Your task to perform on an android device: toggle improve location accuracy Image 0: 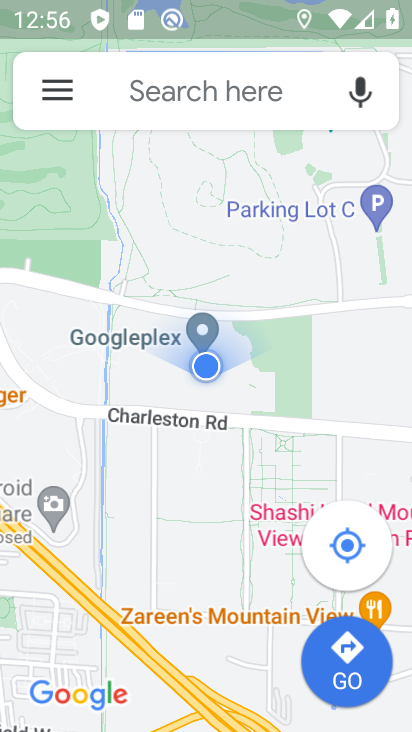
Step 0: click (320, 448)
Your task to perform on an android device: toggle improve location accuracy Image 1: 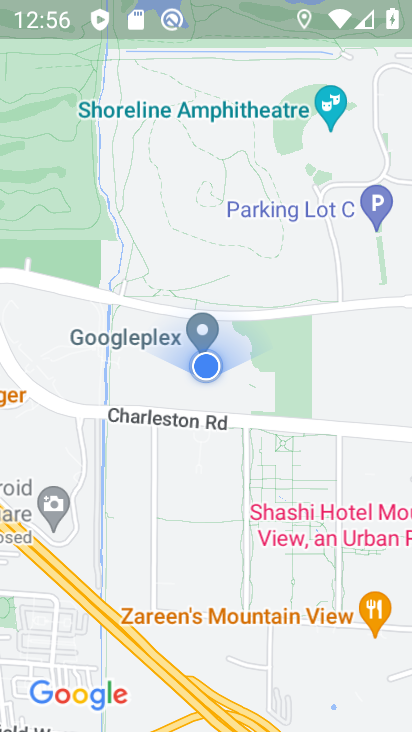
Step 1: press home button
Your task to perform on an android device: toggle improve location accuracy Image 2: 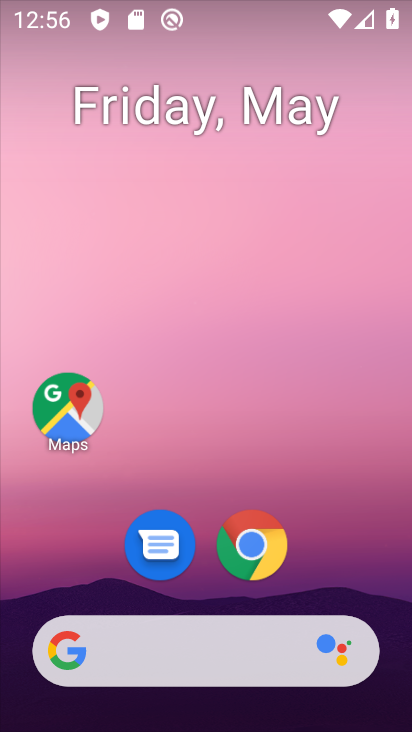
Step 2: drag from (324, 505) to (282, 221)
Your task to perform on an android device: toggle improve location accuracy Image 3: 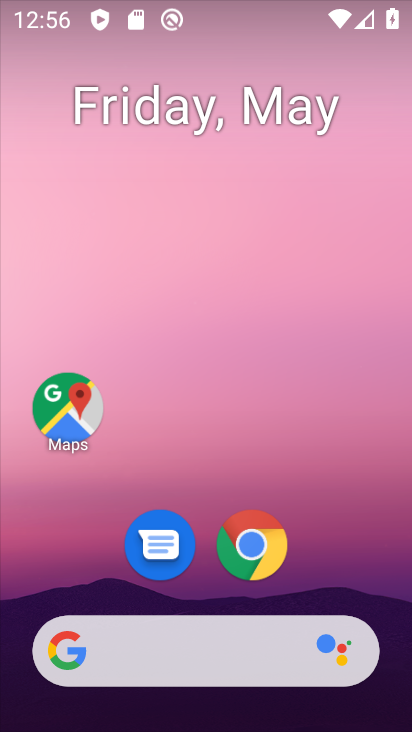
Step 3: drag from (343, 542) to (251, 3)
Your task to perform on an android device: toggle improve location accuracy Image 4: 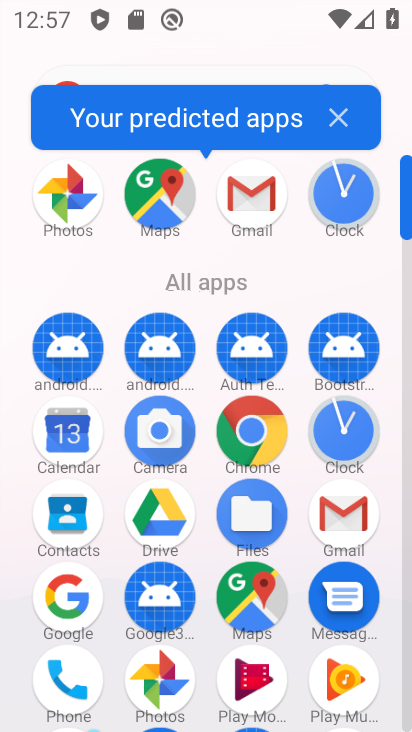
Step 4: drag from (259, 282) to (215, 0)
Your task to perform on an android device: toggle improve location accuracy Image 5: 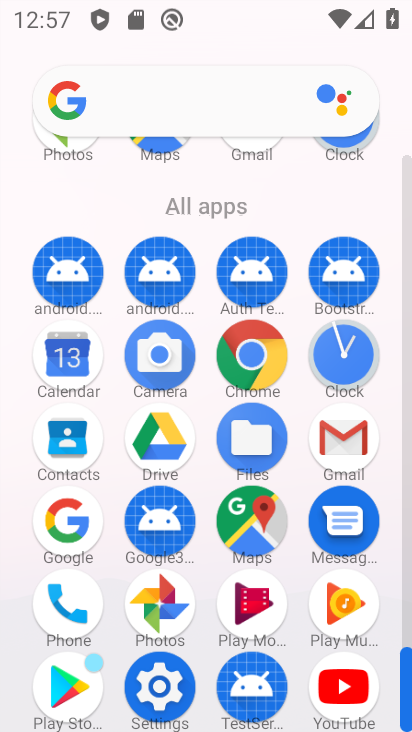
Step 5: click (144, 679)
Your task to perform on an android device: toggle improve location accuracy Image 6: 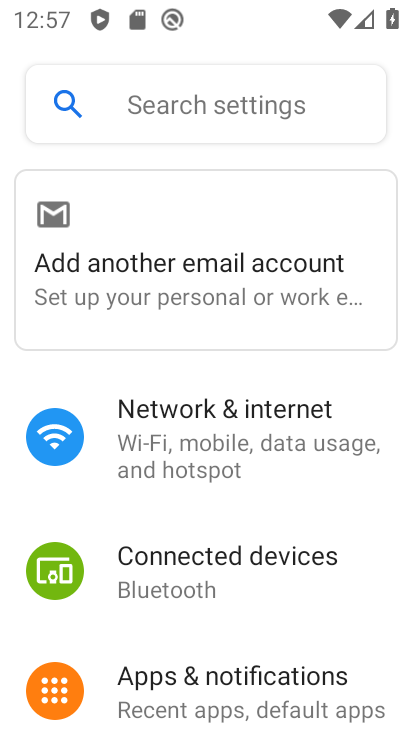
Step 6: drag from (302, 575) to (247, 248)
Your task to perform on an android device: toggle improve location accuracy Image 7: 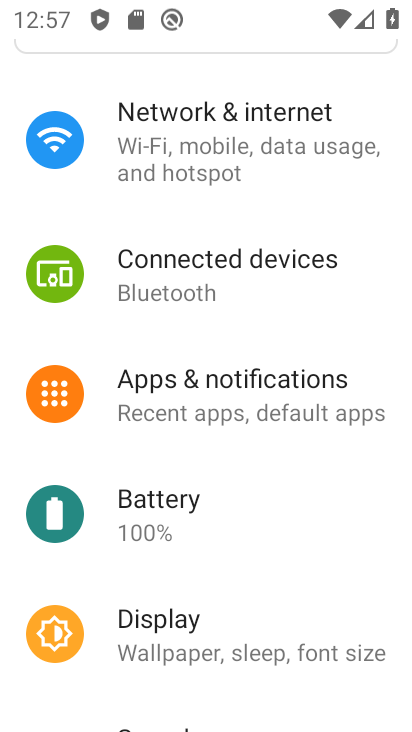
Step 7: drag from (288, 598) to (209, 181)
Your task to perform on an android device: toggle improve location accuracy Image 8: 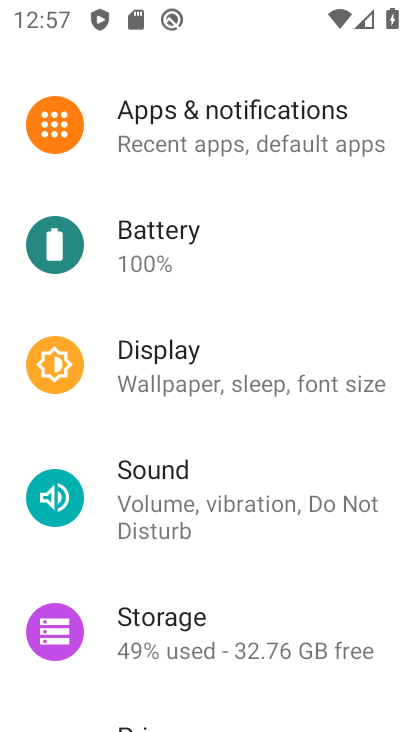
Step 8: drag from (311, 609) to (215, 157)
Your task to perform on an android device: toggle improve location accuracy Image 9: 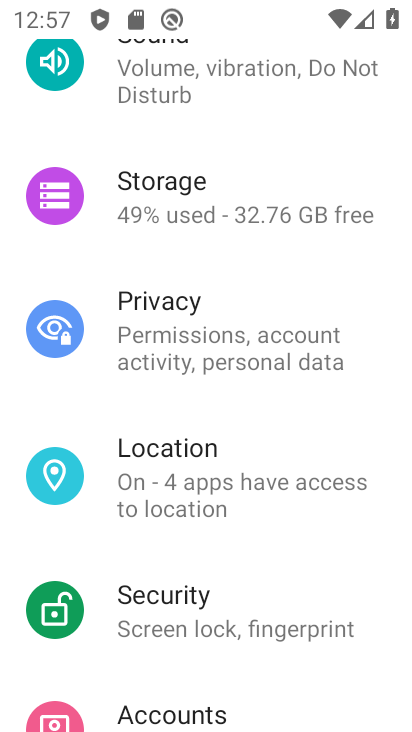
Step 9: click (241, 470)
Your task to perform on an android device: toggle improve location accuracy Image 10: 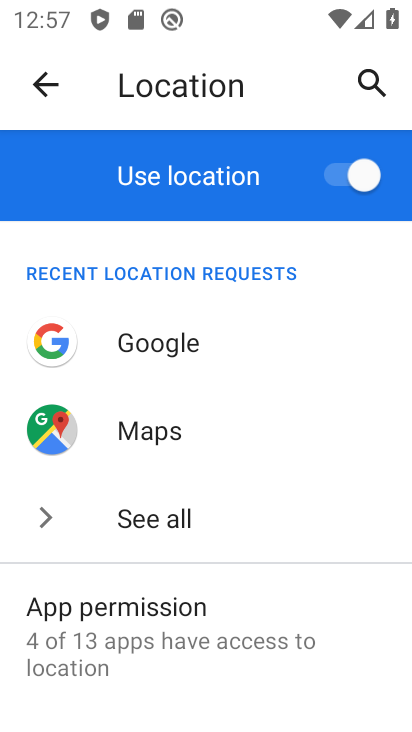
Step 10: drag from (345, 599) to (288, 46)
Your task to perform on an android device: toggle improve location accuracy Image 11: 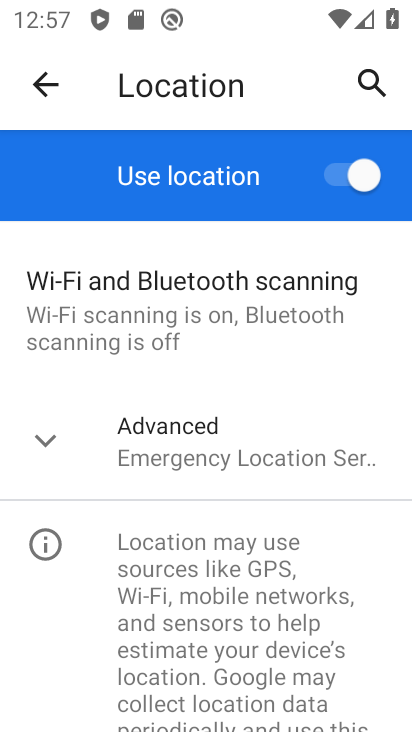
Step 11: click (276, 436)
Your task to perform on an android device: toggle improve location accuracy Image 12: 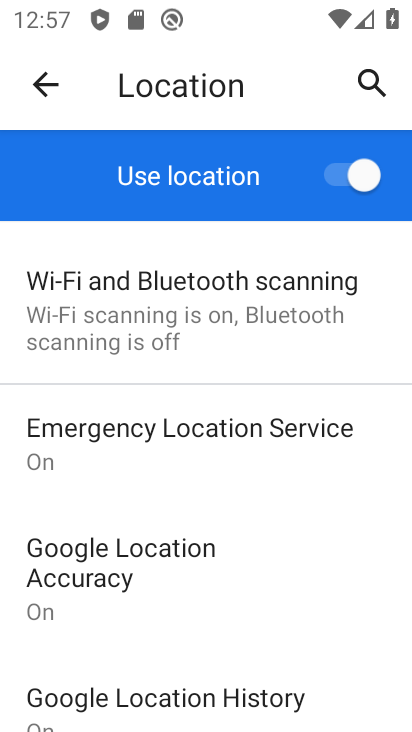
Step 12: click (139, 564)
Your task to perform on an android device: toggle improve location accuracy Image 13: 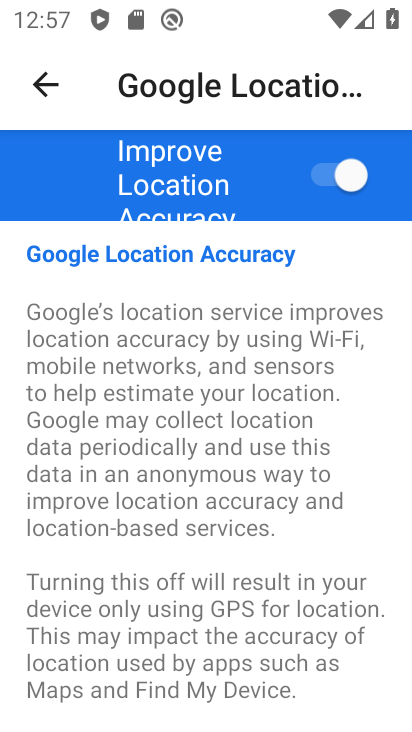
Step 13: click (344, 178)
Your task to perform on an android device: toggle improve location accuracy Image 14: 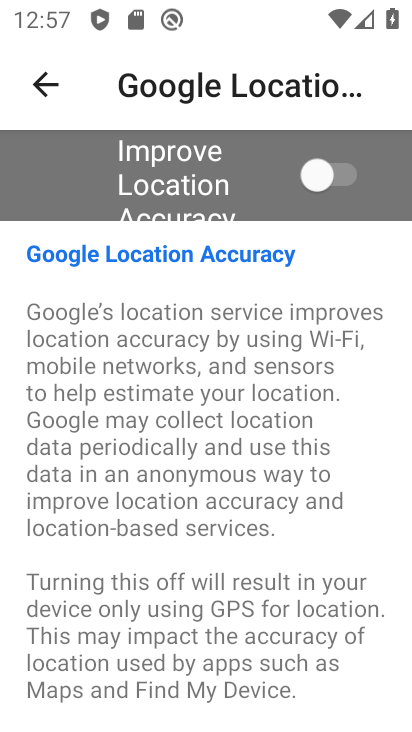
Step 14: task complete